Your task to perform on an android device: toggle notifications settings in the gmail app Image 0: 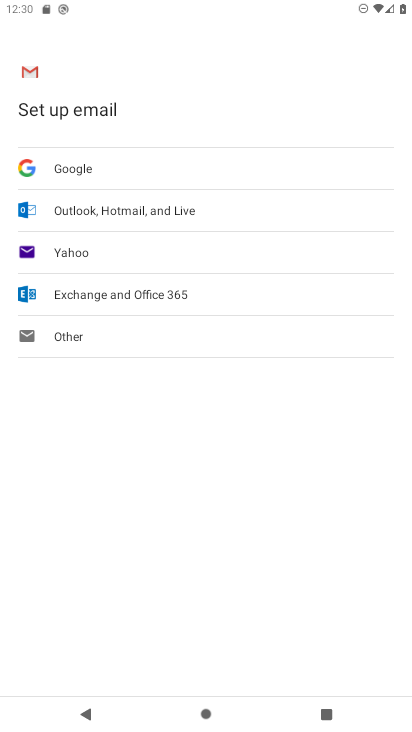
Step 0: press home button
Your task to perform on an android device: toggle notifications settings in the gmail app Image 1: 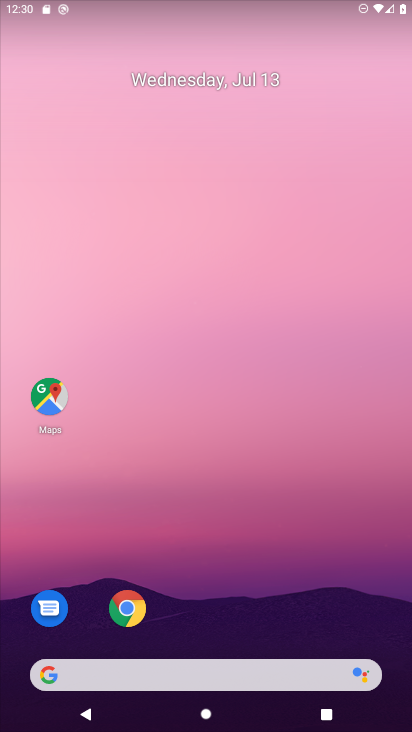
Step 1: drag from (132, 603) to (185, 215)
Your task to perform on an android device: toggle notifications settings in the gmail app Image 2: 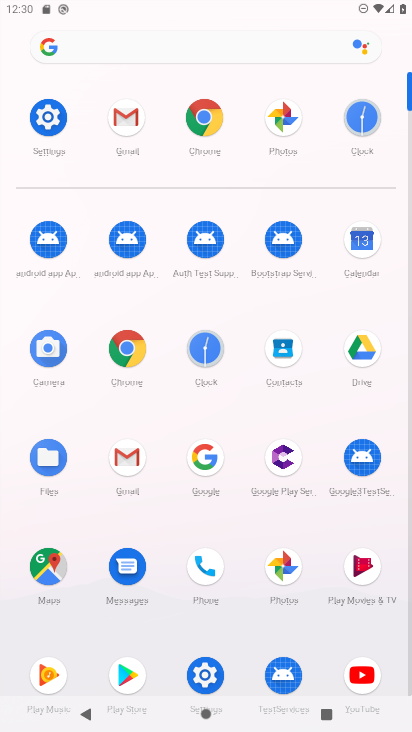
Step 2: click (125, 116)
Your task to perform on an android device: toggle notifications settings in the gmail app Image 3: 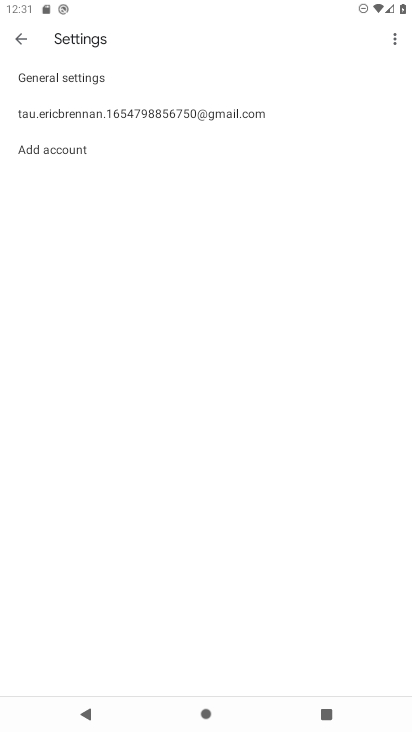
Step 3: click (17, 34)
Your task to perform on an android device: toggle notifications settings in the gmail app Image 4: 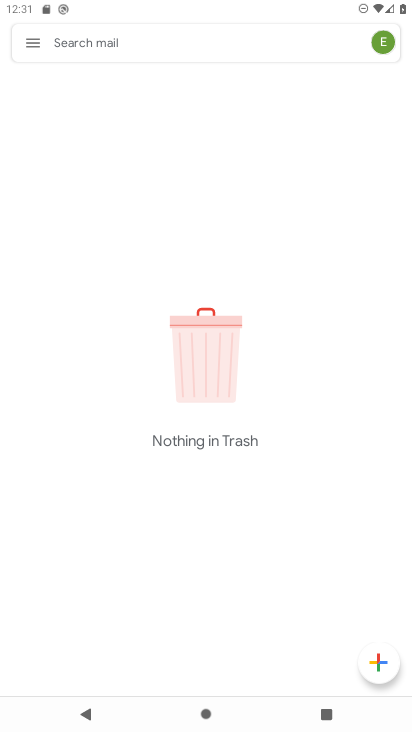
Step 4: click (31, 39)
Your task to perform on an android device: toggle notifications settings in the gmail app Image 5: 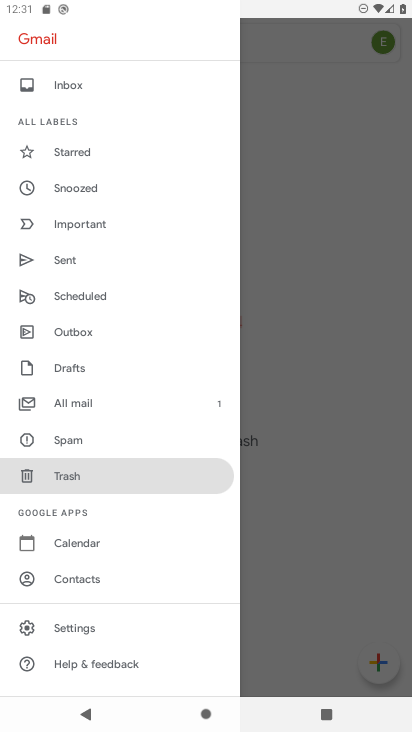
Step 5: click (120, 626)
Your task to perform on an android device: toggle notifications settings in the gmail app Image 6: 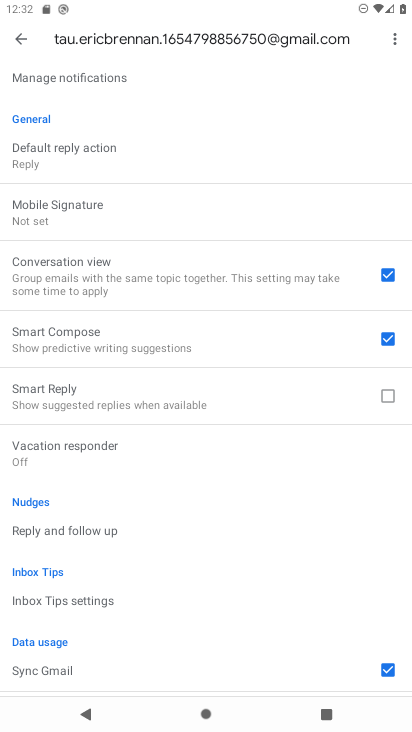
Step 6: drag from (176, 128) to (212, 667)
Your task to perform on an android device: toggle notifications settings in the gmail app Image 7: 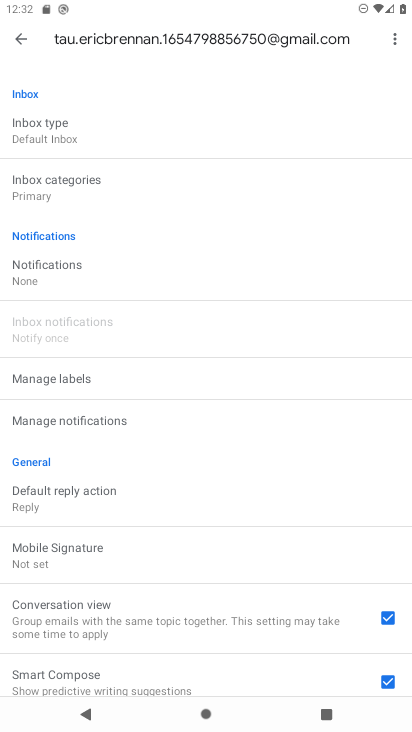
Step 7: click (136, 272)
Your task to perform on an android device: toggle notifications settings in the gmail app Image 8: 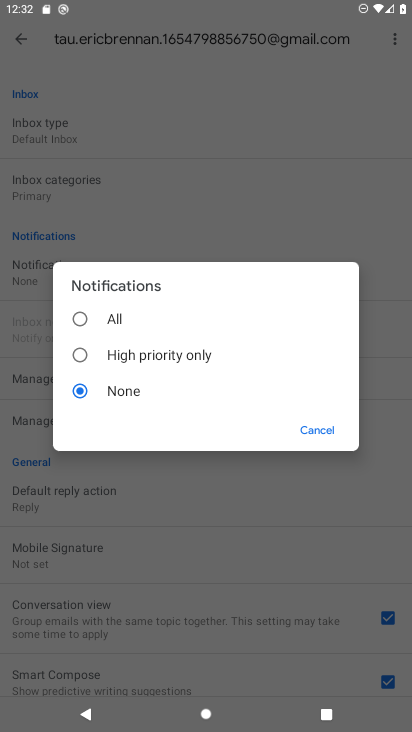
Step 8: click (213, 350)
Your task to perform on an android device: toggle notifications settings in the gmail app Image 9: 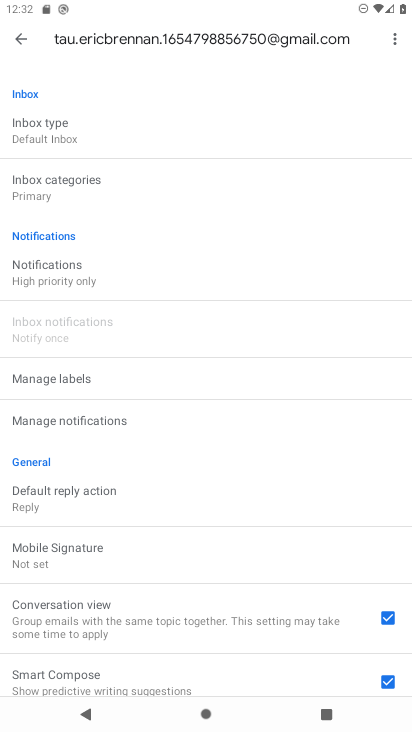
Step 9: task complete